Your task to perform on an android device: Go to settings Image 0: 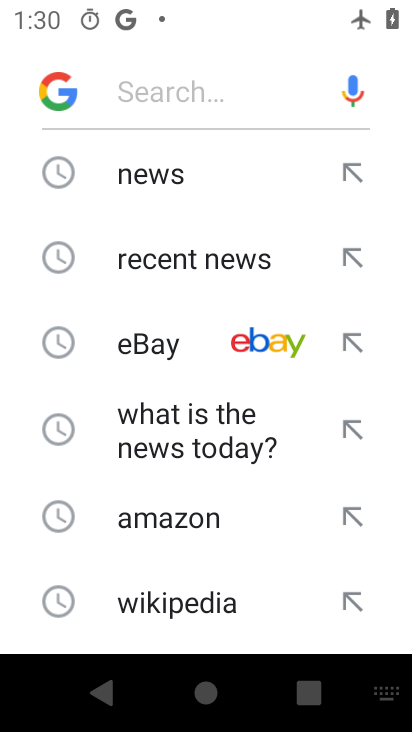
Step 0: press home button
Your task to perform on an android device: Go to settings Image 1: 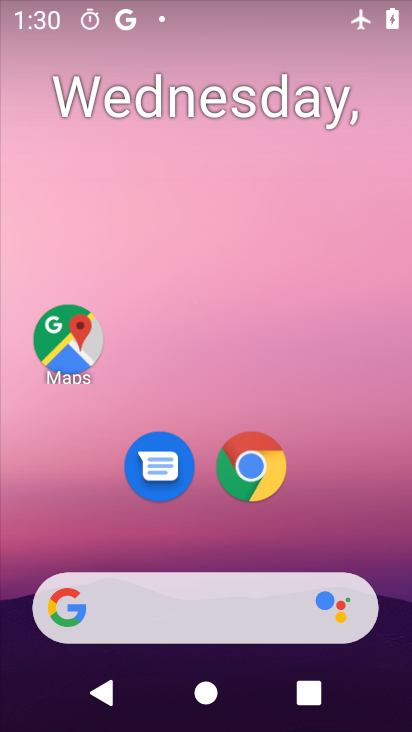
Step 1: drag from (329, 384) to (304, 99)
Your task to perform on an android device: Go to settings Image 2: 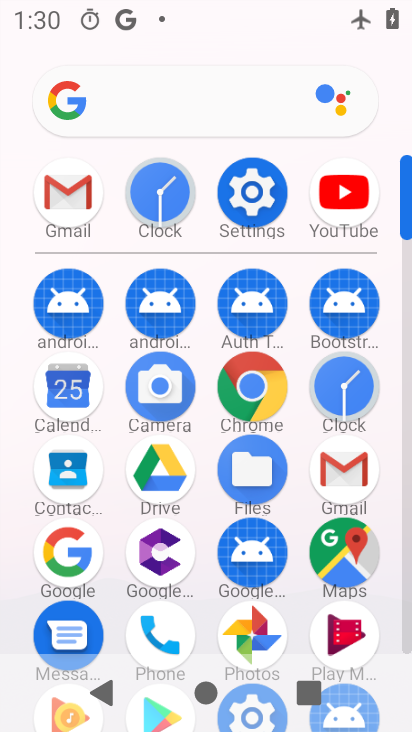
Step 2: click (225, 198)
Your task to perform on an android device: Go to settings Image 3: 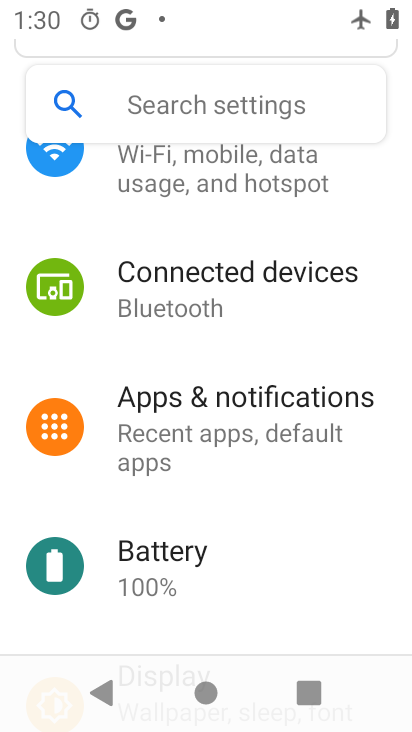
Step 3: task complete